Your task to perform on an android device: toggle show notifications on the lock screen Image 0: 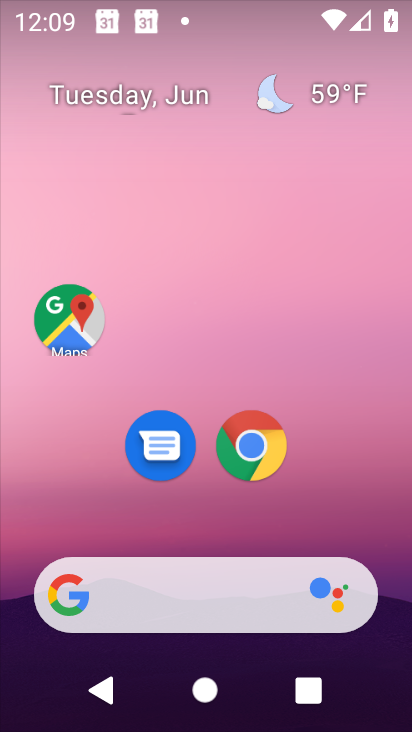
Step 0: drag from (215, 515) to (211, 36)
Your task to perform on an android device: toggle show notifications on the lock screen Image 1: 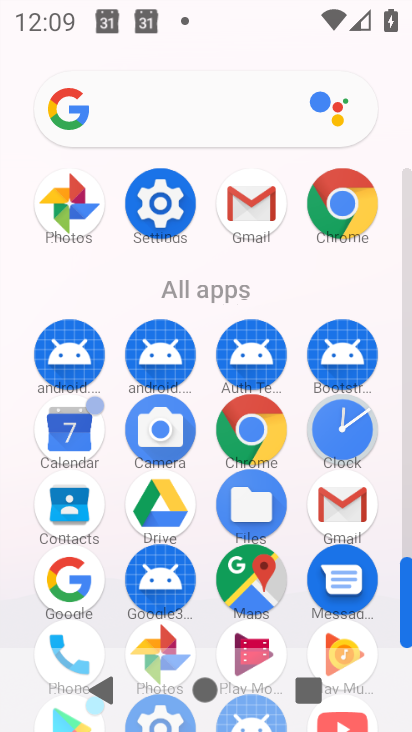
Step 1: click (155, 213)
Your task to perform on an android device: toggle show notifications on the lock screen Image 2: 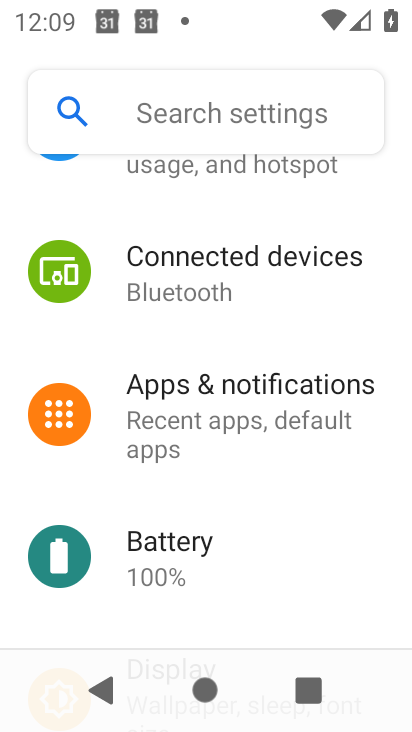
Step 2: click (170, 401)
Your task to perform on an android device: toggle show notifications on the lock screen Image 3: 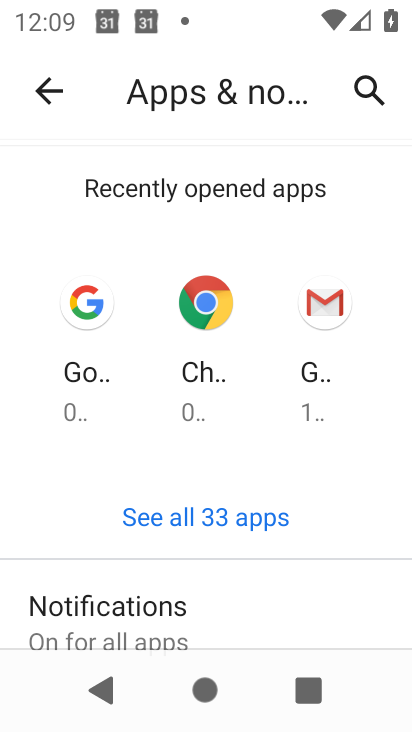
Step 3: drag from (125, 589) to (154, 70)
Your task to perform on an android device: toggle show notifications on the lock screen Image 4: 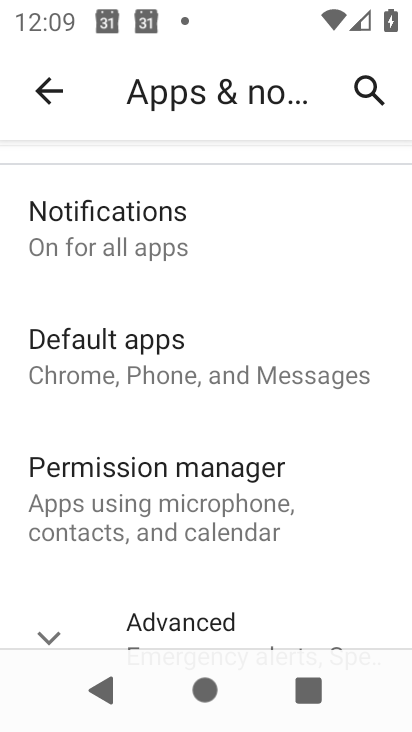
Step 4: click (172, 247)
Your task to perform on an android device: toggle show notifications on the lock screen Image 5: 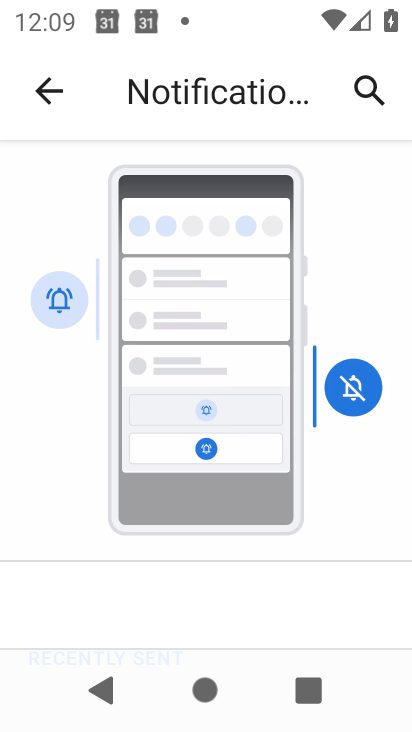
Step 5: drag from (115, 594) to (118, 2)
Your task to perform on an android device: toggle show notifications on the lock screen Image 6: 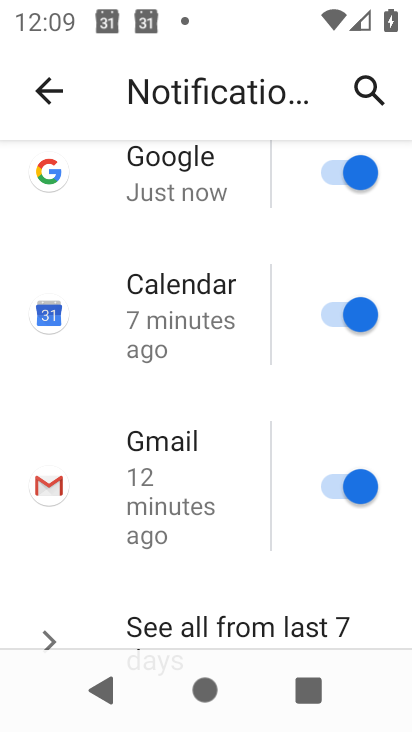
Step 6: drag from (109, 524) to (114, 175)
Your task to perform on an android device: toggle show notifications on the lock screen Image 7: 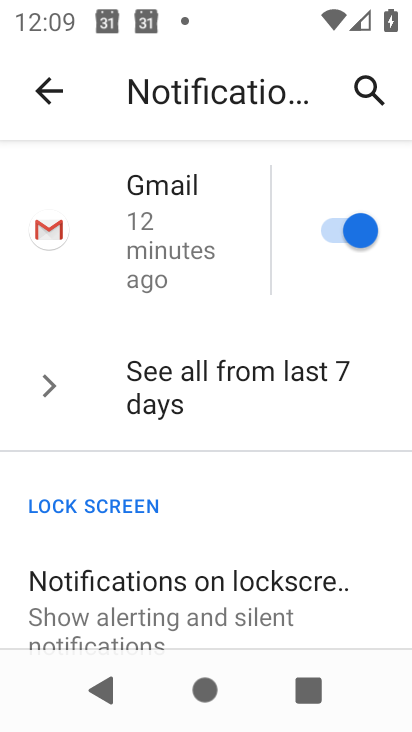
Step 7: drag from (160, 581) to (170, 276)
Your task to perform on an android device: toggle show notifications on the lock screen Image 8: 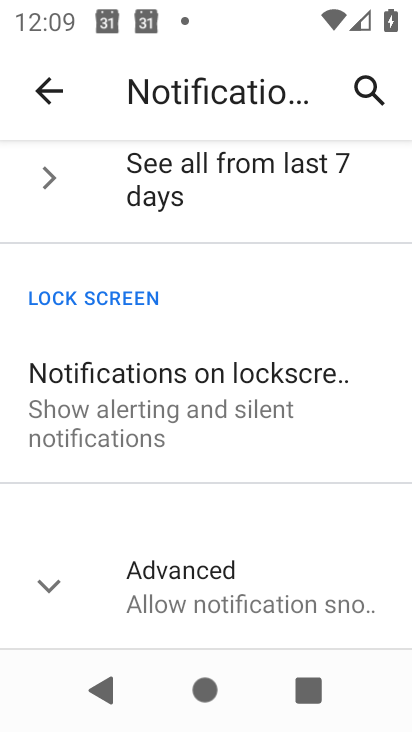
Step 8: click (164, 415)
Your task to perform on an android device: toggle show notifications on the lock screen Image 9: 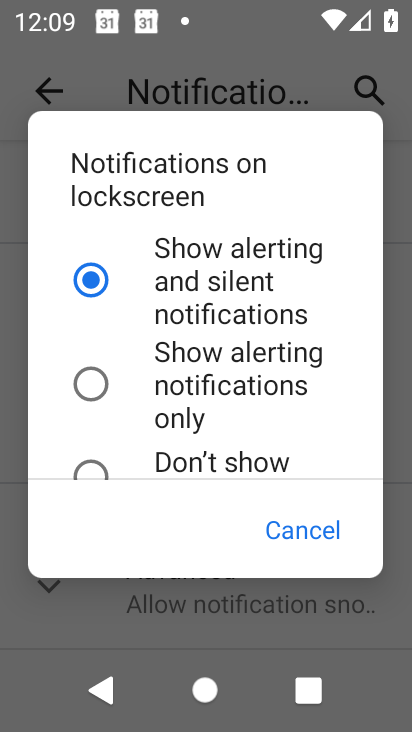
Step 9: click (164, 415)
Your task to perform on an android device: toggle show notifications on the lock screen Image 10: 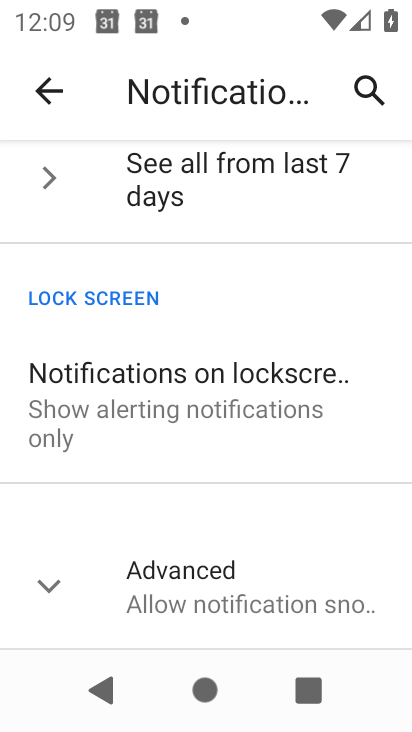
Step 10: task complete